Your task to perform on an android device: Turn off the flashlight Image 0: 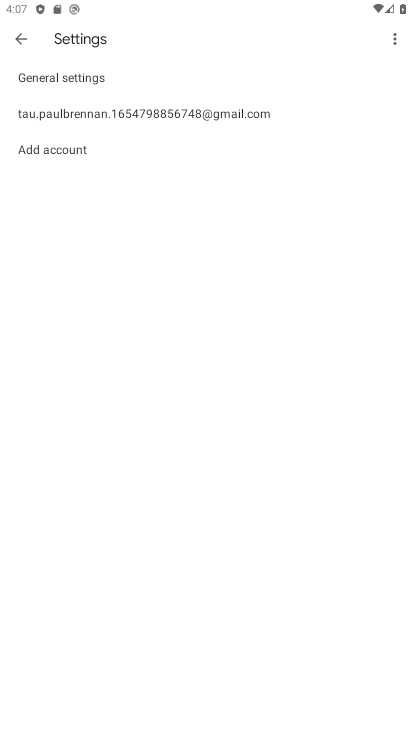
Step 0: press home button
Your task to perform on an android device: Turn off the flashlight Image 1: 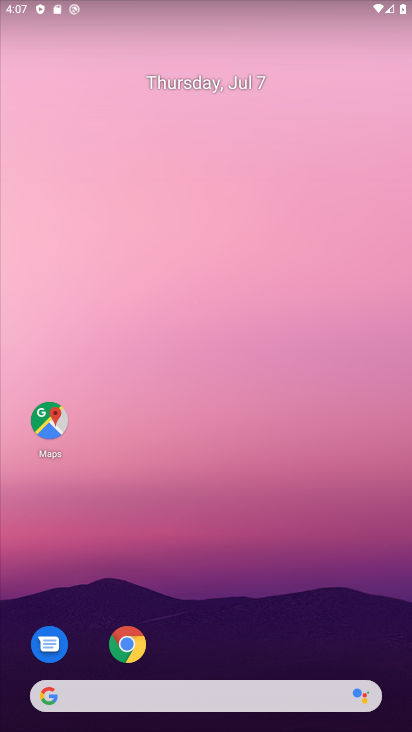
Step 1: drag from (186, 650) to (174, 210)
Your task to perform on an android device: Turn off the flashlight Image 2: 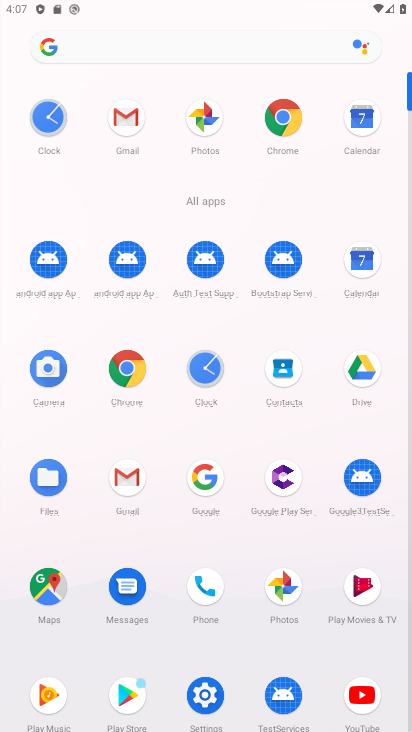
Step 2: click (195, 685)
Your task to perform on an android device: Turn off the flashlight Image 3: 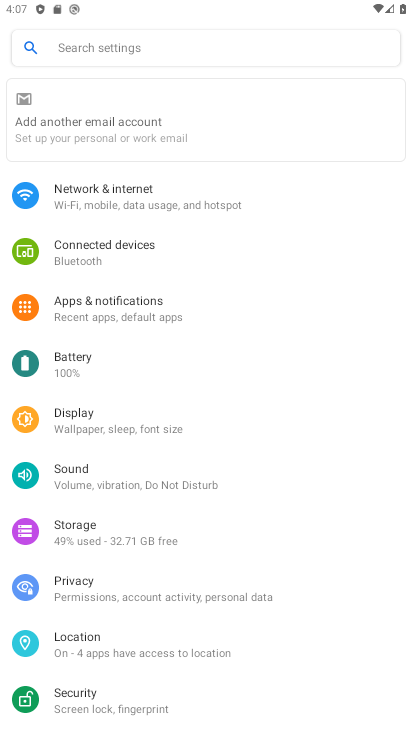
Step 3: task complete